Your task to perform on an android device: add a label to a message in the gmail app Image 0: 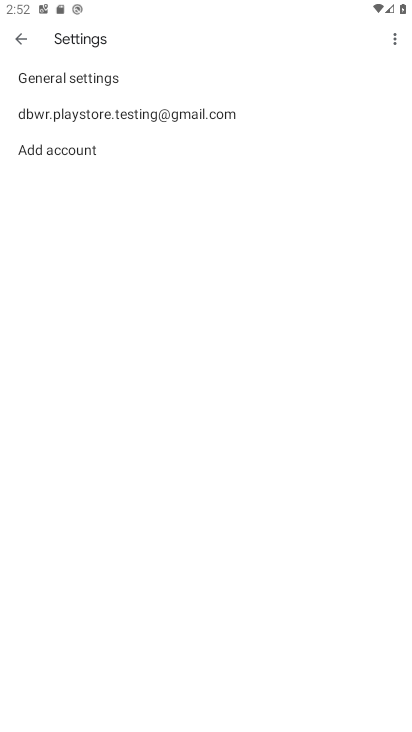
Step 0: press home button
Your task to perform on an android device: add a label to a message in the gmail app Image 1: 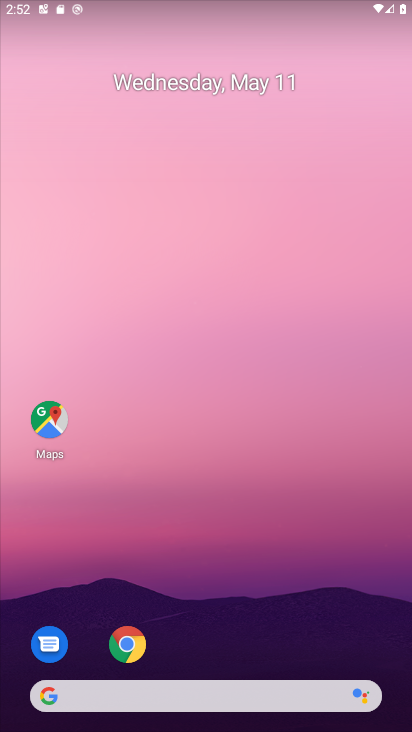
Step 1: drag from (221, 681) to (11, 57)
Your task to perform on an android device: add a label to a message in the gmail app Image 2: 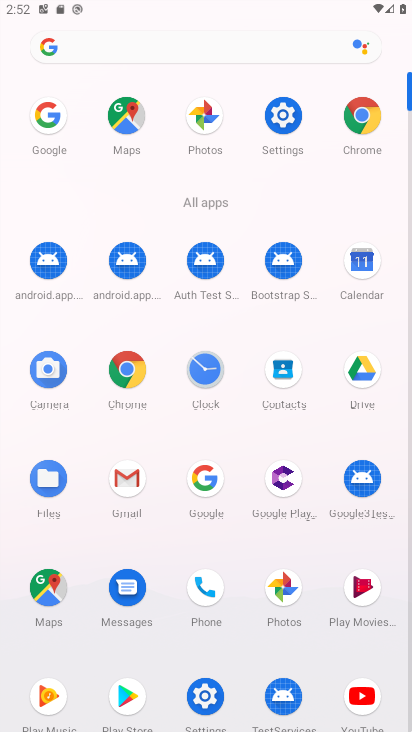
Step 2: click (134, 478)
Your task to perform on an android device: add a label to a message in the gmail app Image 3: 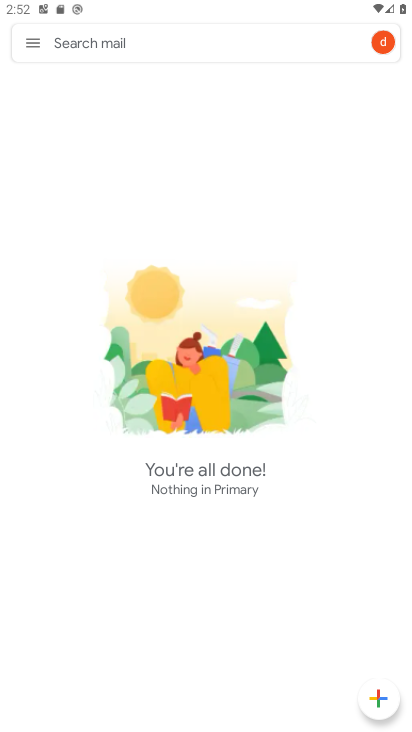
Step 3: task complete